Your task to perform on an android device: Open Youtube and go to "Your channel" Image 0: 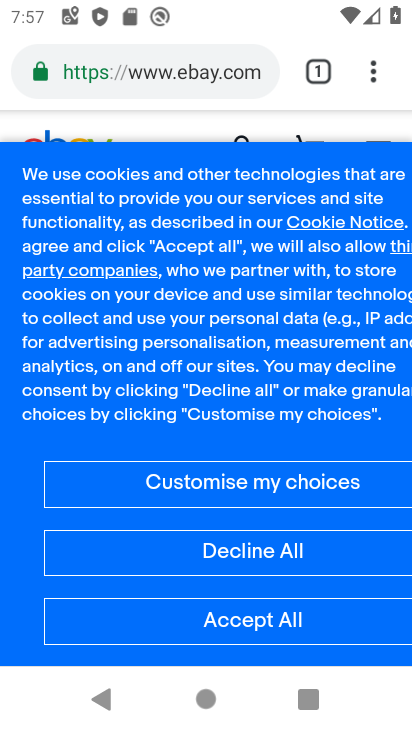
Step 0: press back button
Your task to perform on an android device: Open Youtube and go to "Your channel" Image 1: 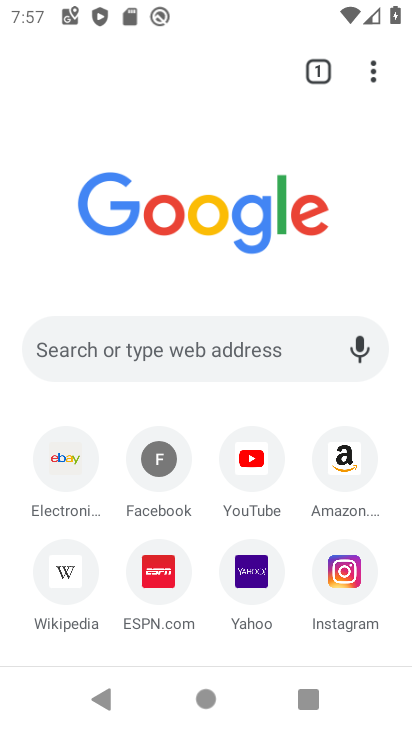
Step 1: click (253, 459)
Your task to perform on an android device: Open Youtube and go to "Your channel" Image 2: 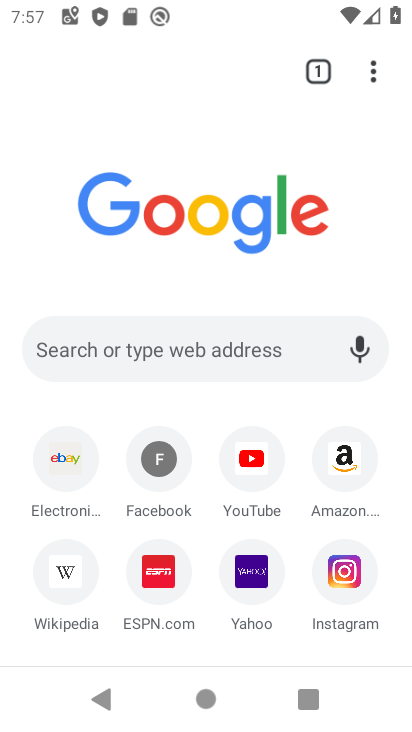
Step 2: click (253, 459)
Your task to perform on an android device: Open Youtube and go to "Your channel" Image 3: 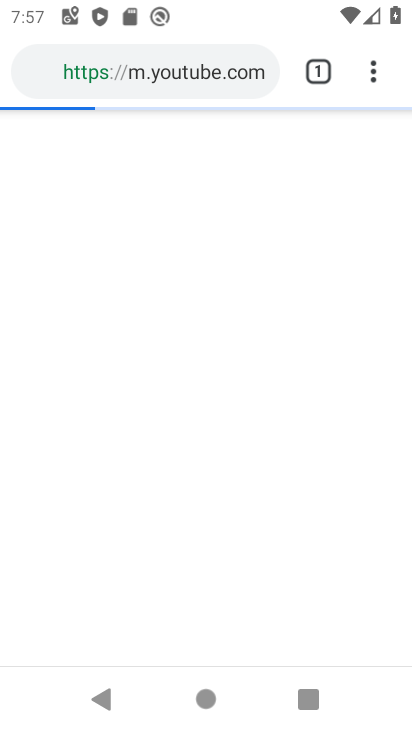
Step 3: click (253, 459)
Your task to perform on an android device: Open Youtube and go to "Your channel" Image 4: 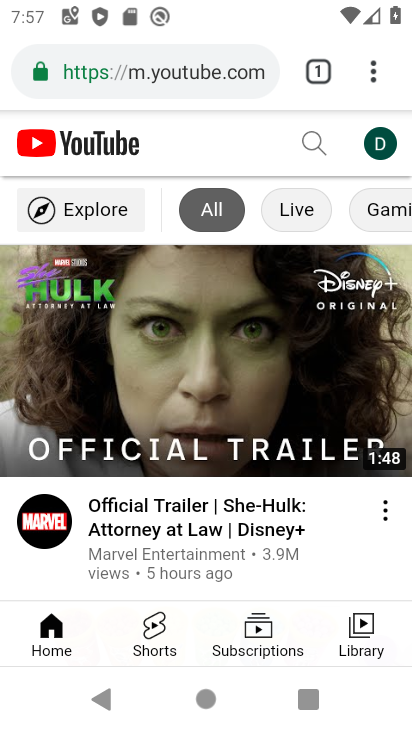
Step 4: task complete